Your task to perform on an android device: set the stopwatch Image 0: 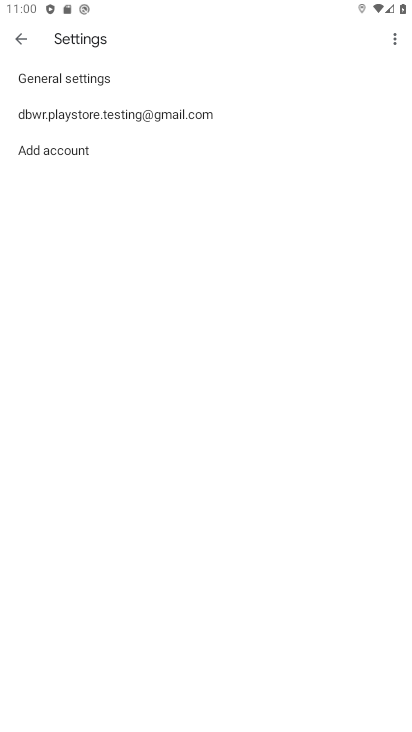
Step 0: press home button
Your task to perform on an android device: set the stopwatch Image 1: 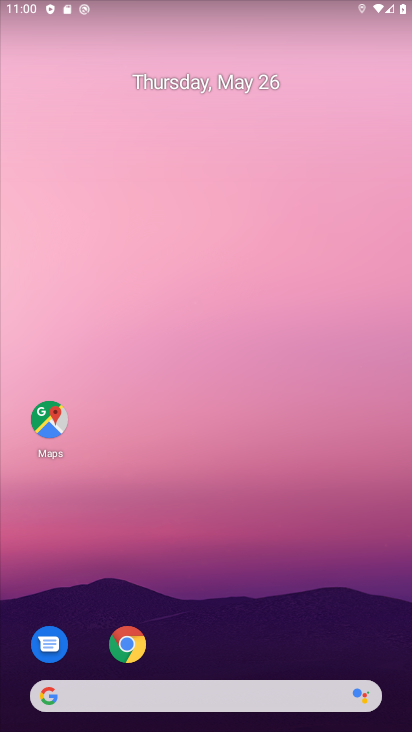
Step 1: drag from (100, 727) to (176, 151)
Your task to perform on an android device: set the stopwatch Image 2: 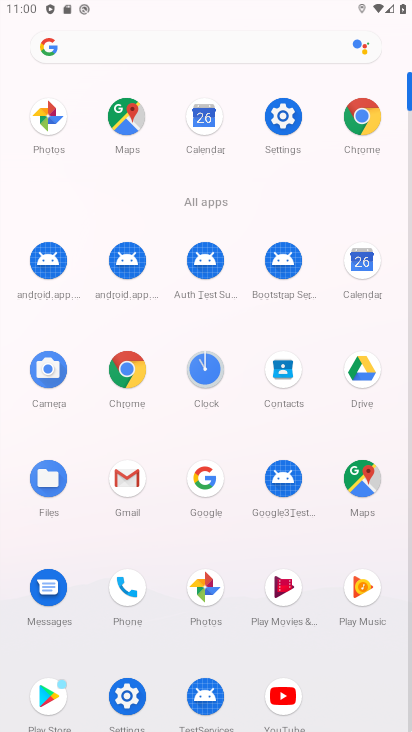
Step 2: click (211, 372)
Your task to perform on an android device: set the stopwatch Image 3: 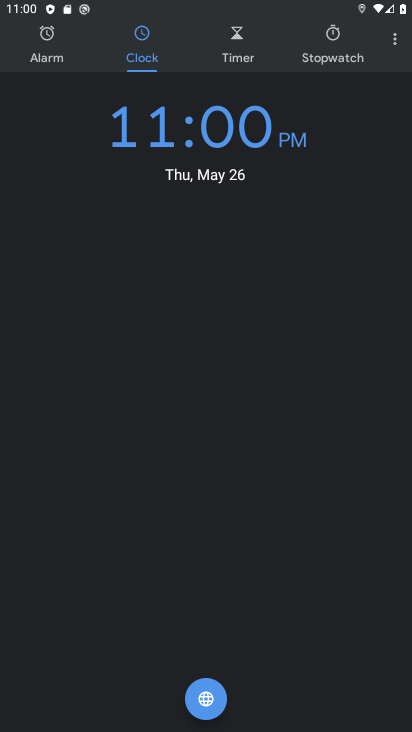
Step 3: click (329, 35)
Your task to perform on an android device: set the stopwatch Image 4: 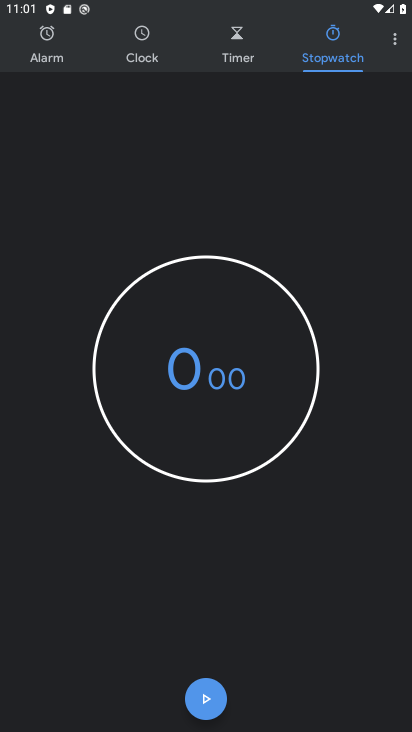
Step 4: click (205, 700)
Your task to perform on an android device: set the stopwatch Image 5: 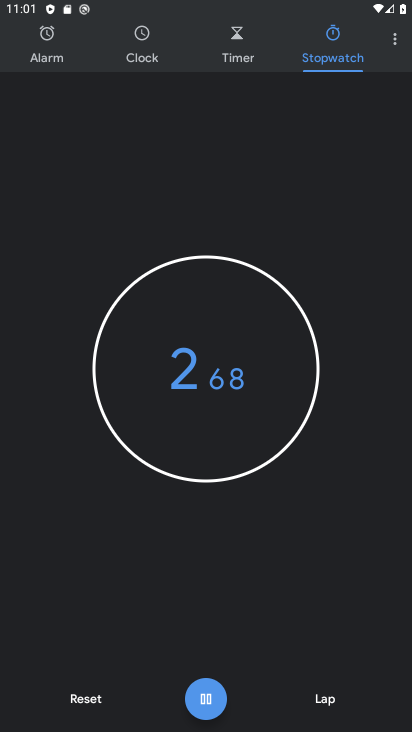
Step 5: click (202, 711)
Your task to perform on an android device: set the stopwatch Image 6: 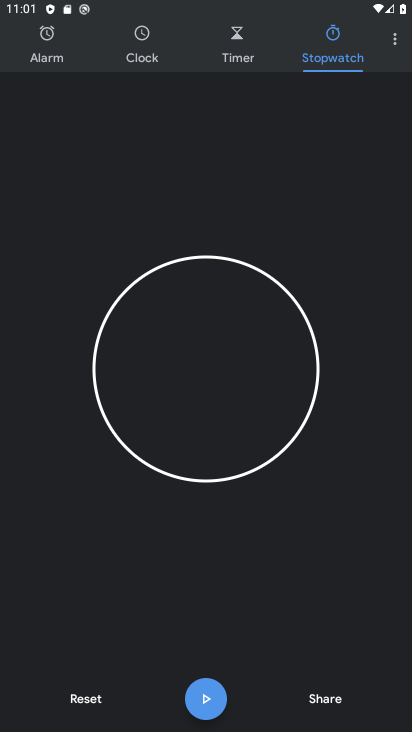
Step 6: task complete